Your task to perform on an android device: open app "eBay: The shopping marketplace" (install if not already installed), go to login, and select forgot password Image 0: 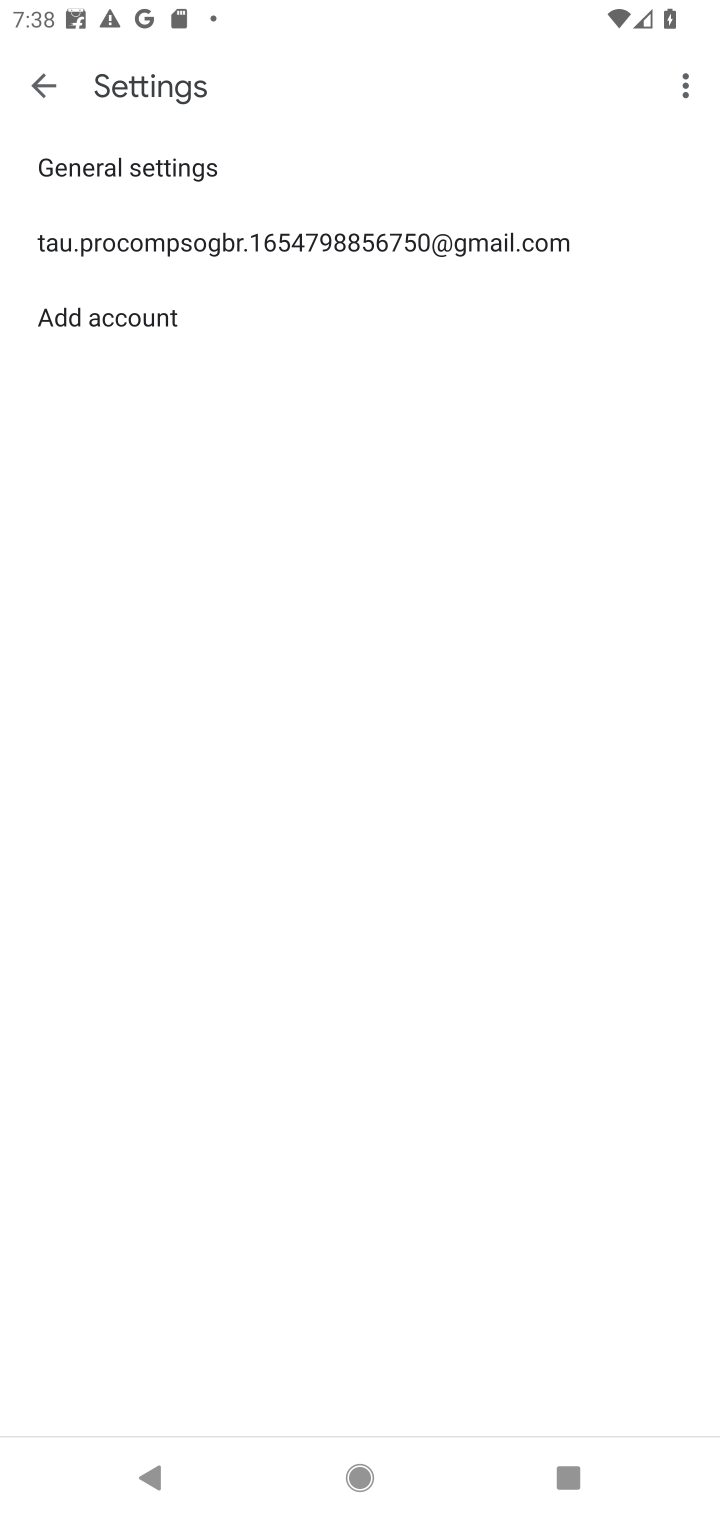
Step 0: press home button
Your task to perform on an android device: open app "eBay: The shopping marketplace" (install if not already installed), go to login, and select forgot password Image 1: 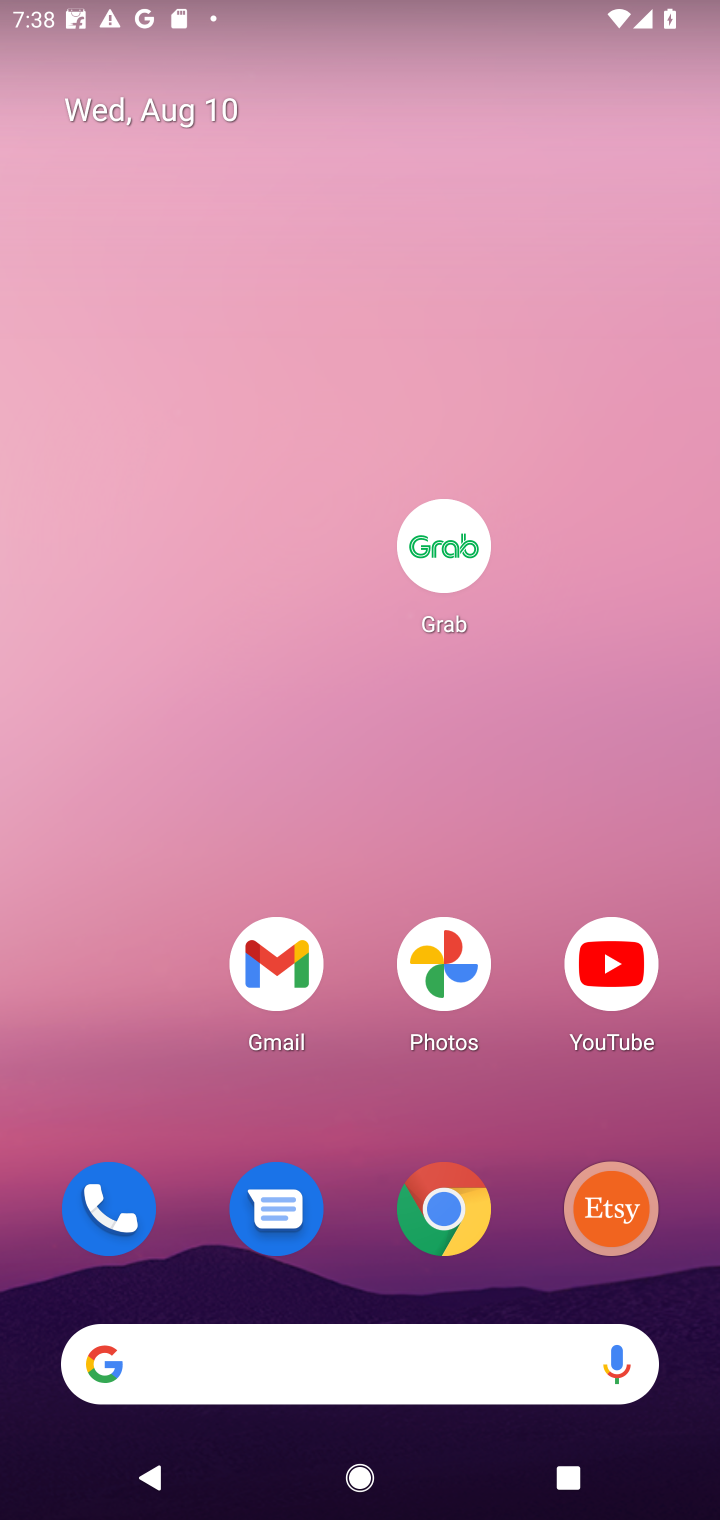
Step 1: drag from (538, 1278) to (499, 54)
Your task to perform on an android device: open app "eBay: The shopping marketplace" (install if not already installed), go to login, and select forgot password Image 2: 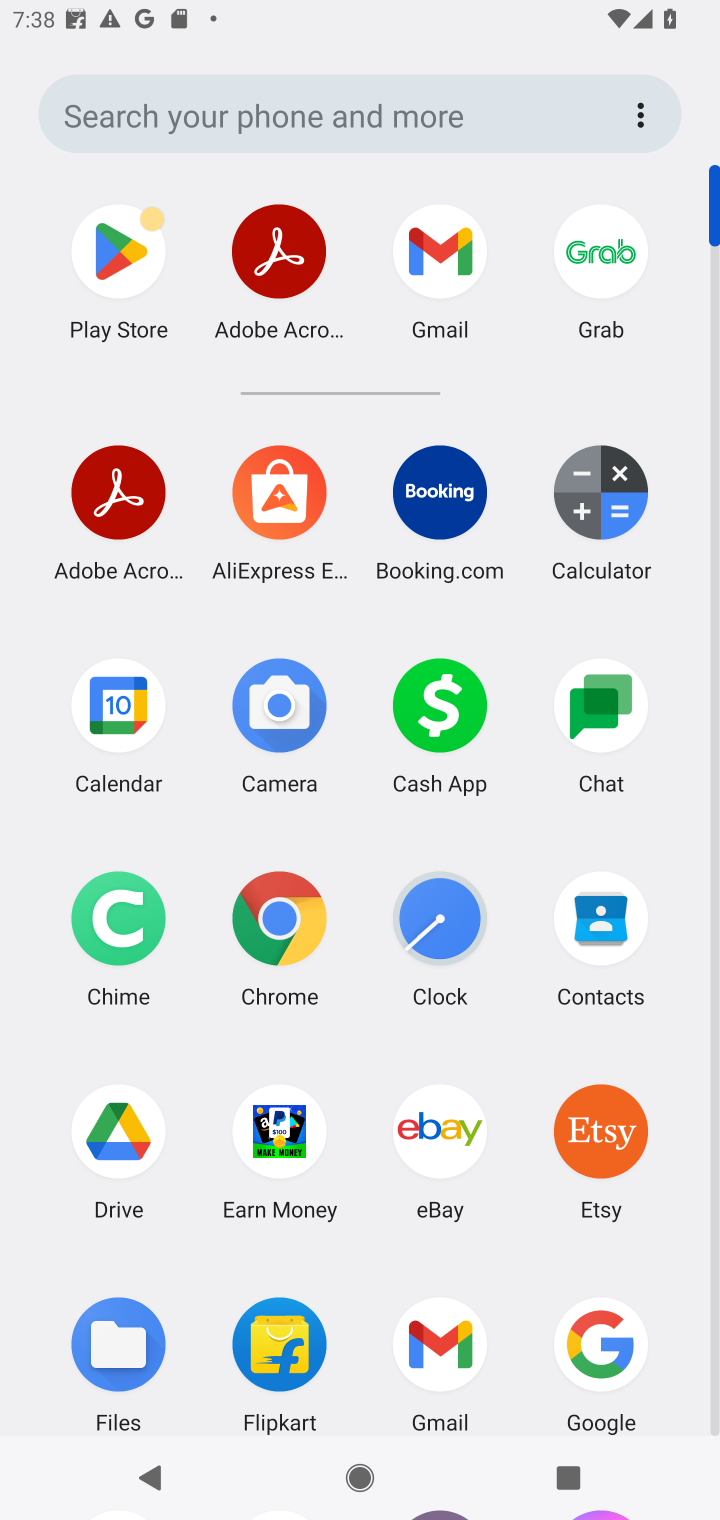
Step 2: click (135, 253)
Your task to perform on an android device: open app "eBay: The shopping marketplace" (install if not already installed), go to login, and select forgot password Image 3: 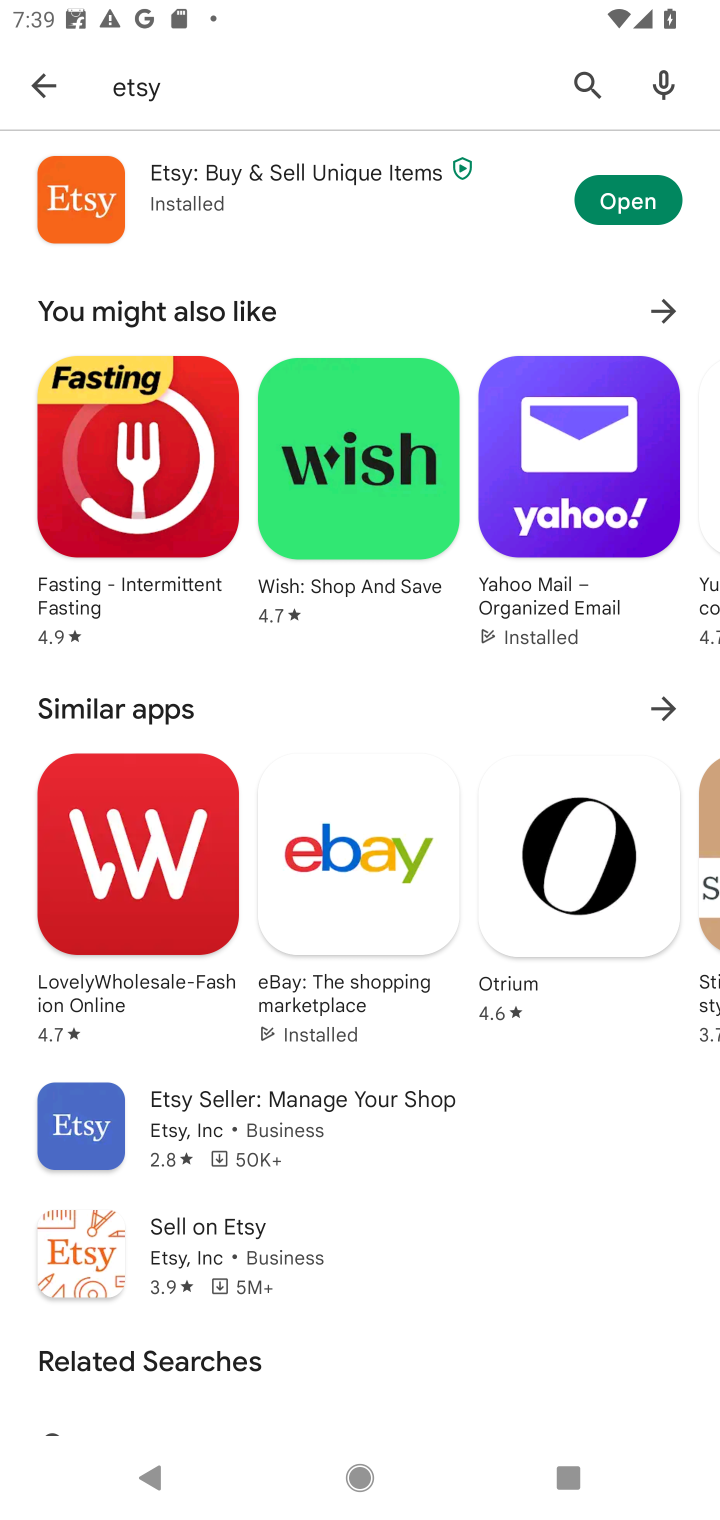
Step 3: click (561, 93)
Your task to perform on an android device: open app "eBay: The shopping marketplace" (install if not already installed), go to login, and select forgot password Image 4: 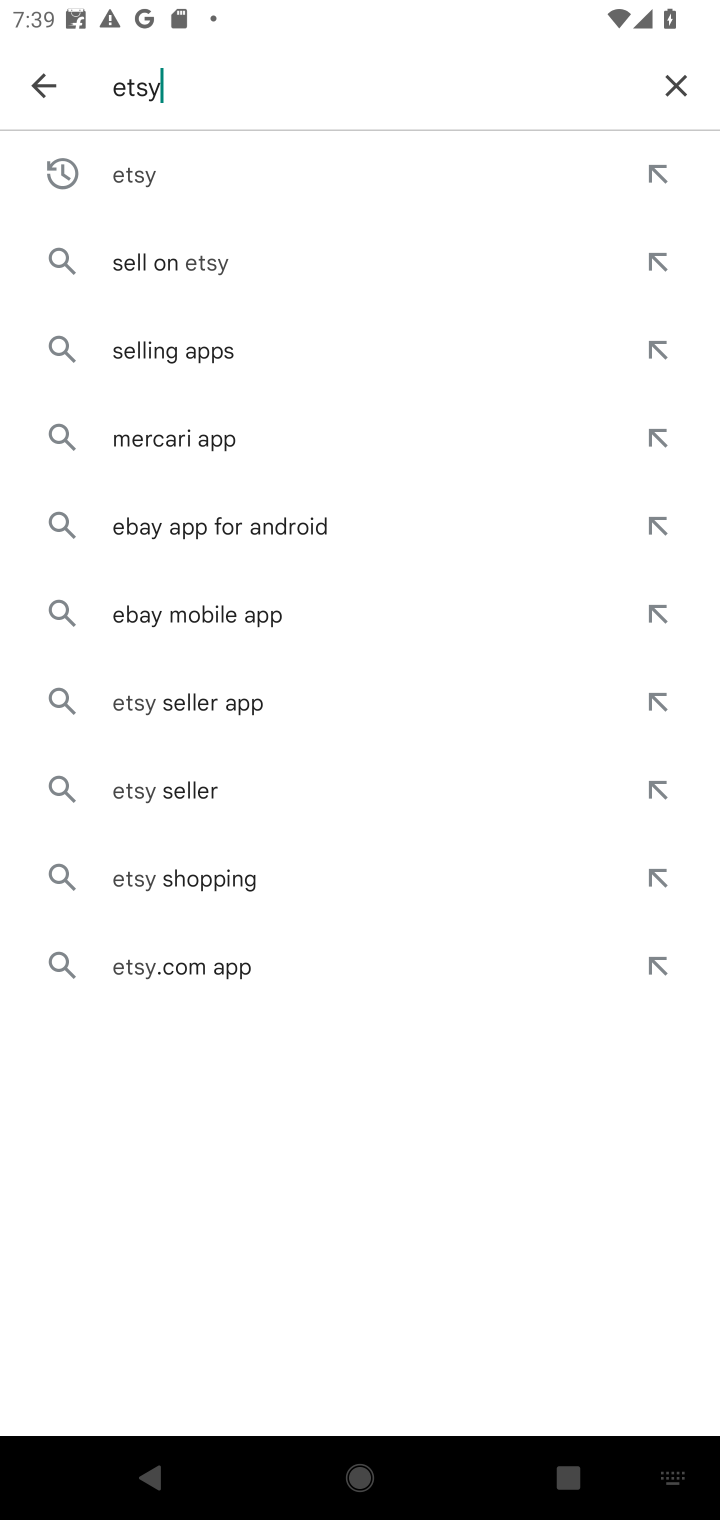
Step 4: click (666, 93)
Your task to perform on an android device: open app "eBay: The shopping marketplace" (install if not already installed), go to login, and select forgot password Image 5: 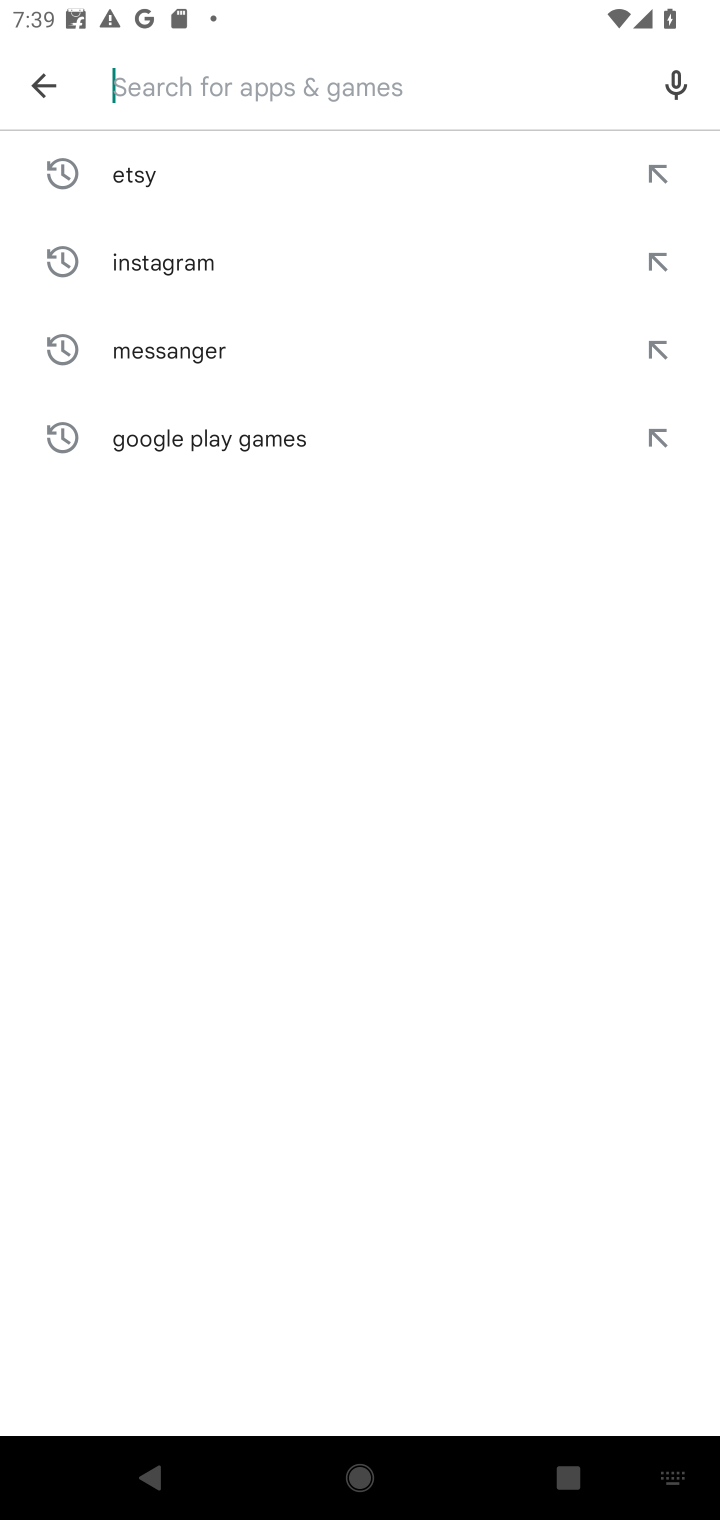
Step 5: type "ebay"
Your task to perform on an android device: open app "eBay: The shopping marketplace" (install if not already installed), go to login, and select forgot password Image 6: 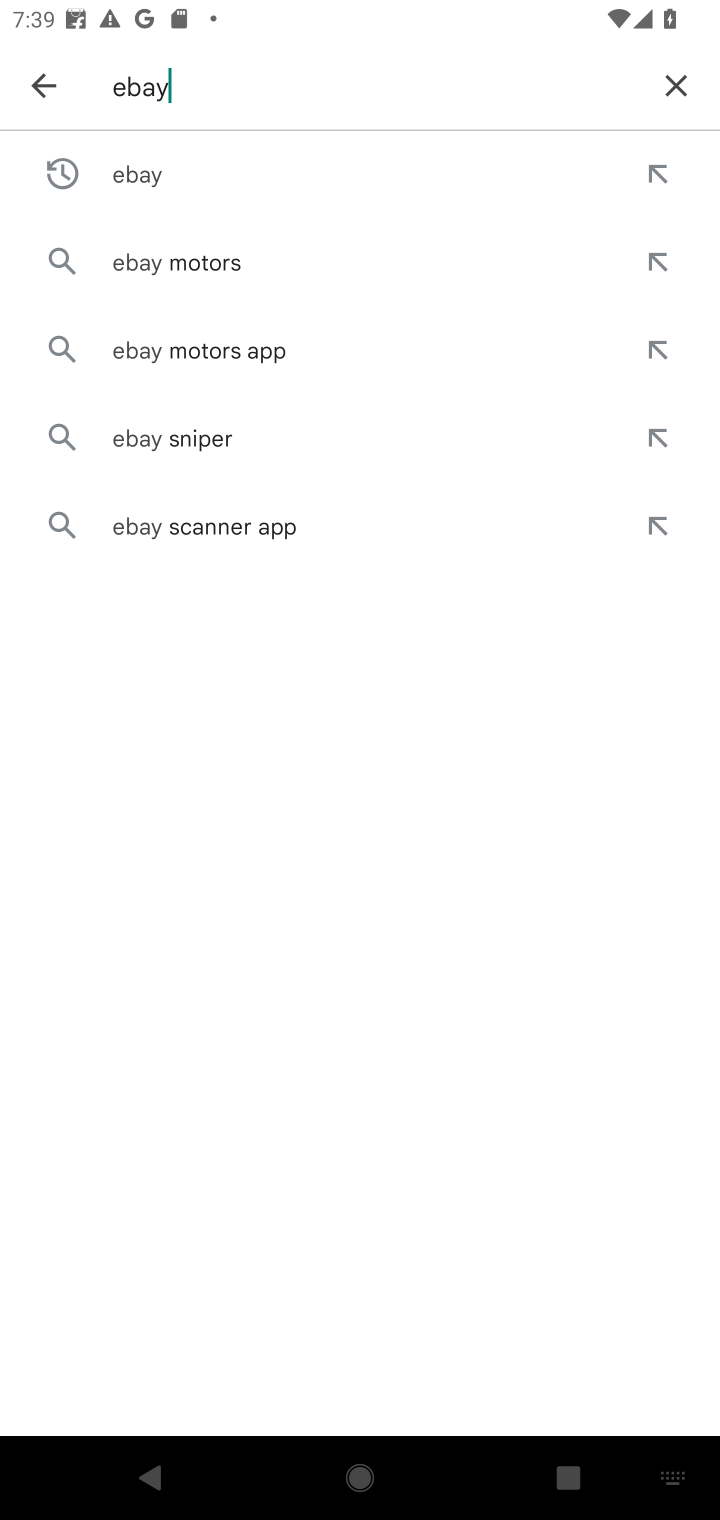
Step 6: click (117, 175)
Your task to perform on an android device: open app "eBay: The shopping marketplace" (install if not already installed), go to login, and select forgot password Image 7: 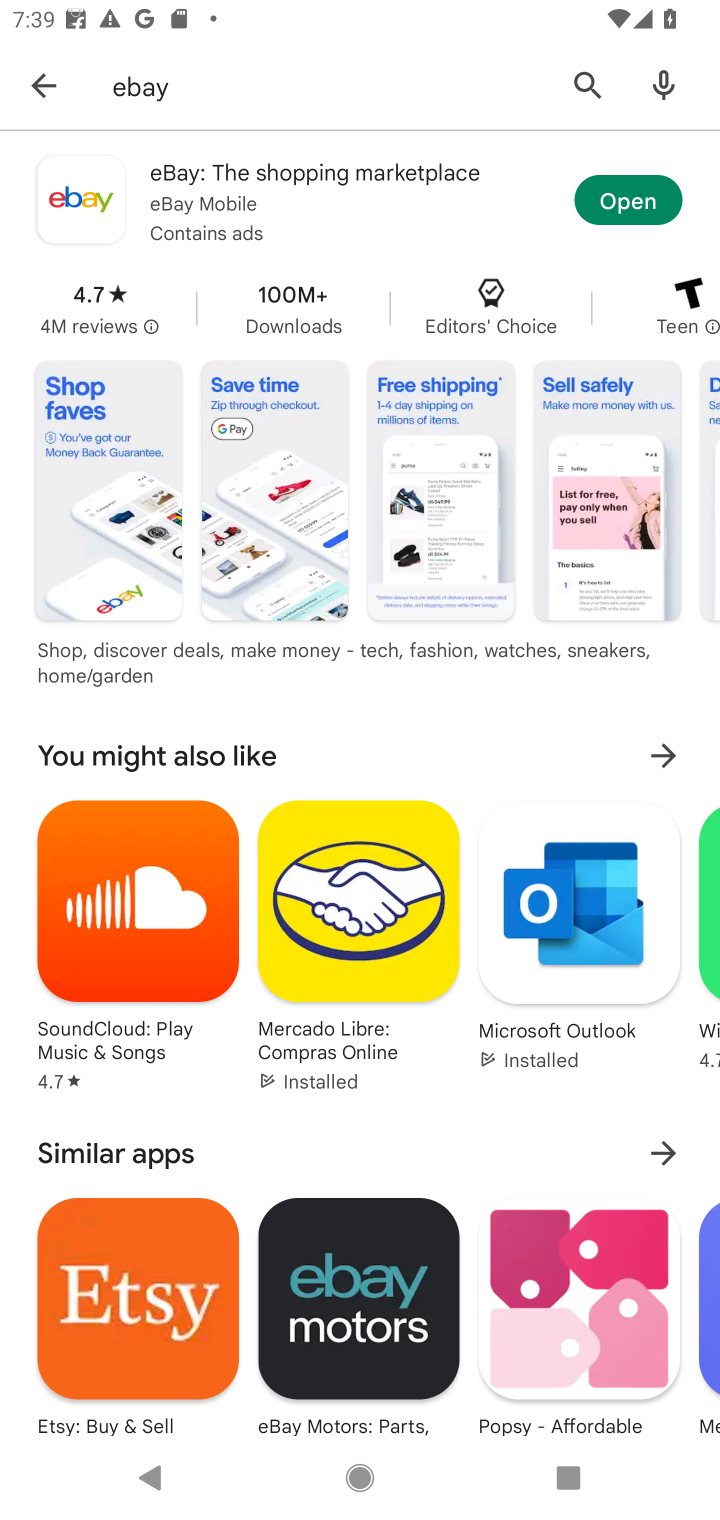
Step 7: click (615, 213)
Your task to perform on an android device: open app "eBay: The shopping marketplace" (install if not already installed), go to login, and select forgot password Image 8: 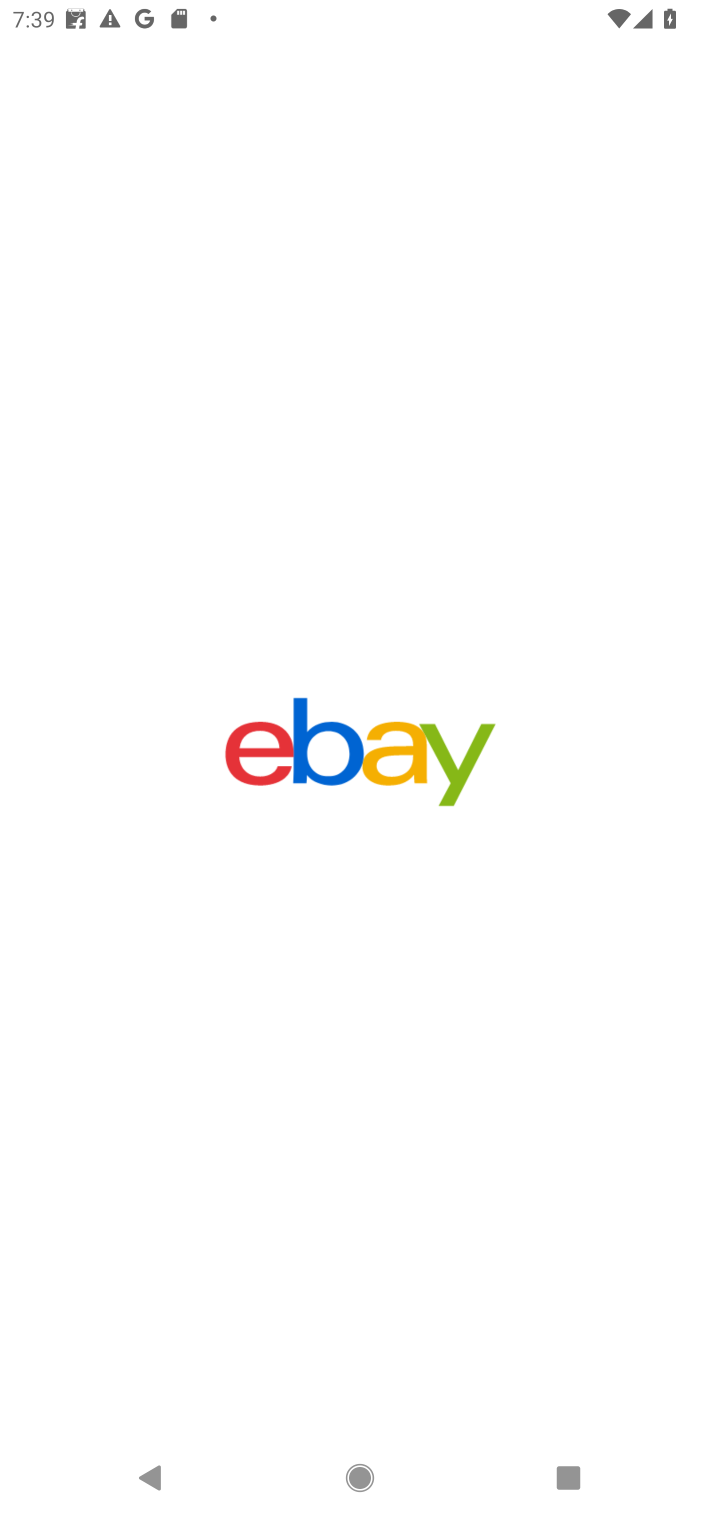
Step 8: task complete